Your task to perform on an android device: open chrome privacy settings Image 0: 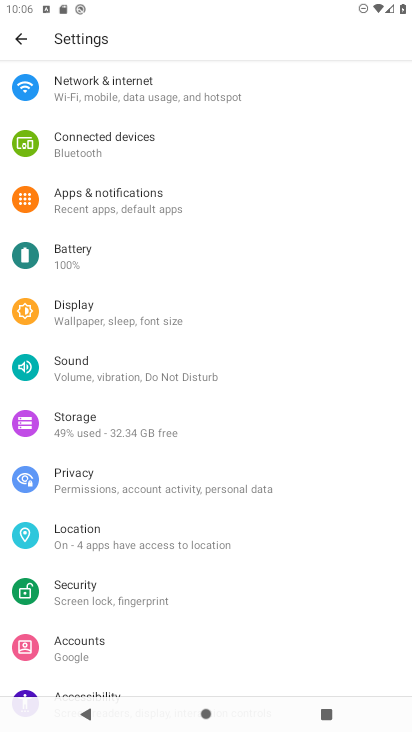
Step 0: press home button
Your task to perform on an android device: open chrome privacy settings Image 1: 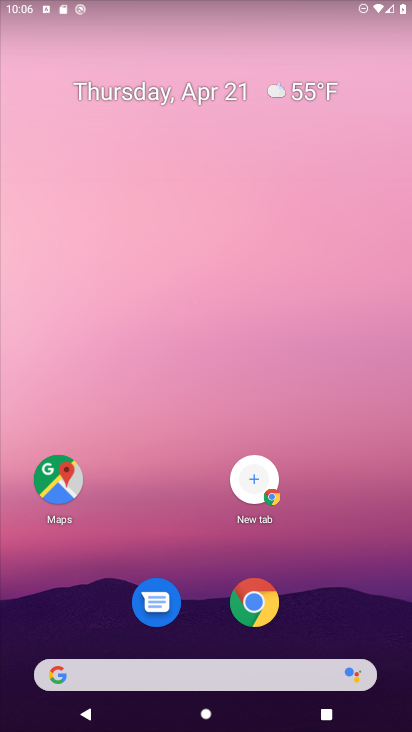
Step 1: click (256, 599)
Your task to perform on an android device: open chrome privacy settings Image 2: 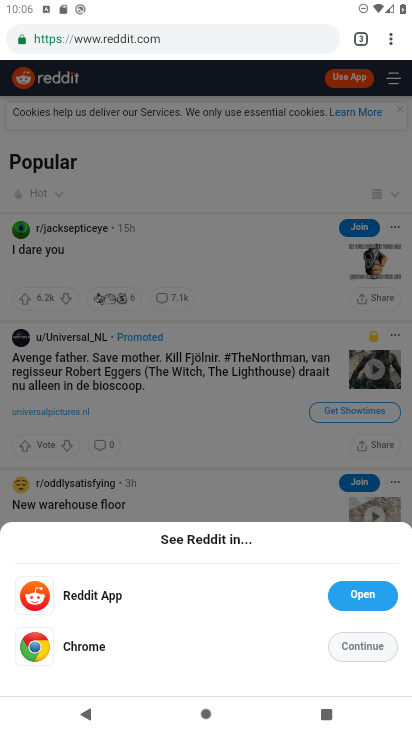
Step 2: click (394, 33)
Your task to perform on an android device: open chrome privacy settings Image 3: 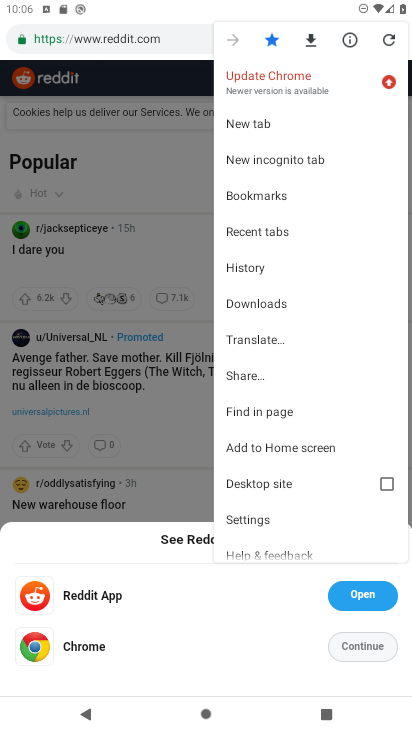
Step 3: click (249, 527)
Your task to perform on an android device: open chrome privacy settings Image 4: 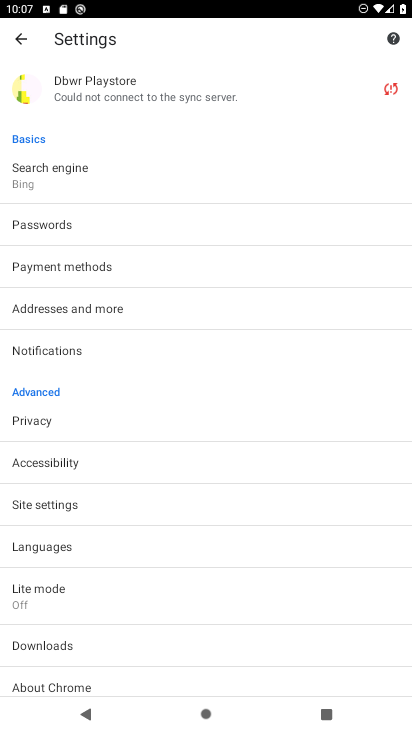
Step 4: click (82, 420)
Your task to perform on an android device: open chrome privacy settings Image 5: 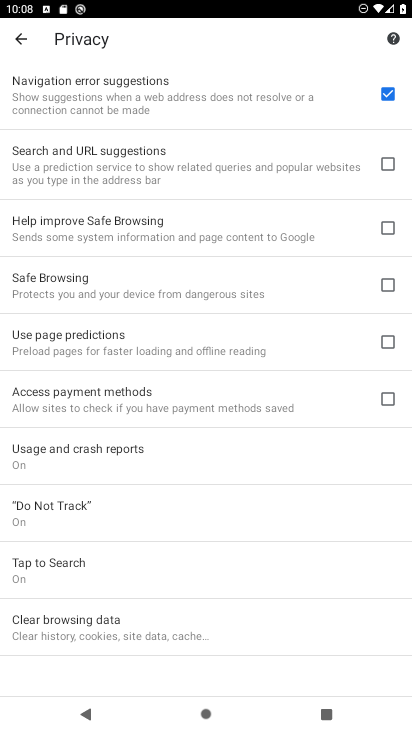
Step 5: task complete